Your task to perform on an android device: Go to location settings Image 0: 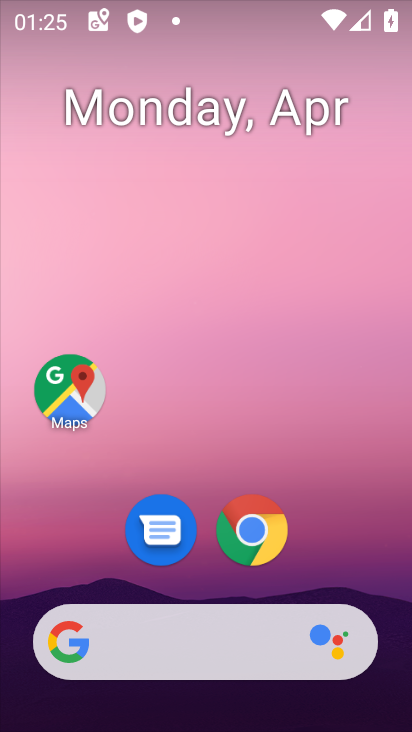
Step 0: drag from (355, 553) to (275, 62)
Your task to perform on an android device: Go to location settings Image 1: 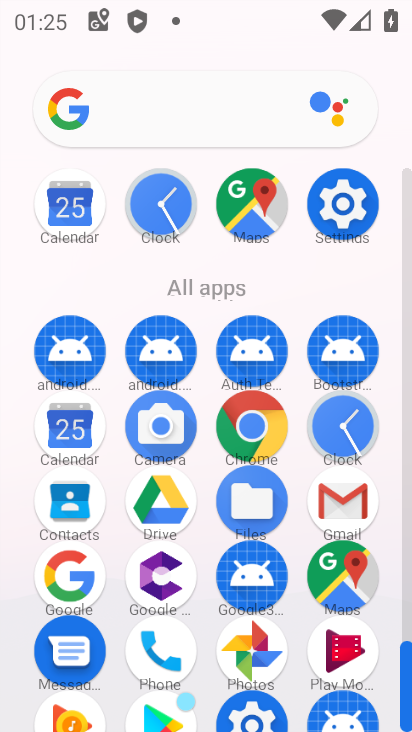
Step 1: click (345, 203)
Your task to perform on an android device: Go to location settings Image 2: 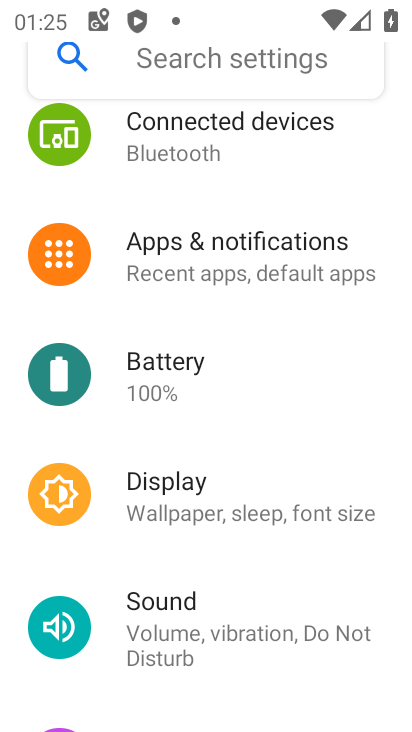
Step 2: drag from (243, 559) to (217, 220)
Your task to perform on an android device: Go to location settings Image 3: 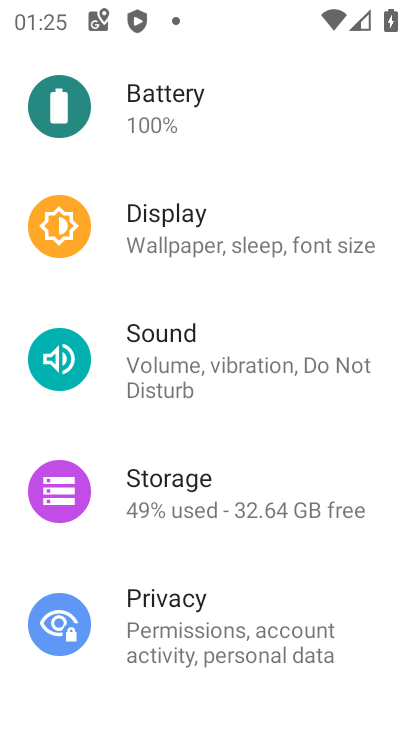
Step 3: drag from (220, 575) to (156, 177)
Your task to perform on an android device: Go to location settings Image 4: 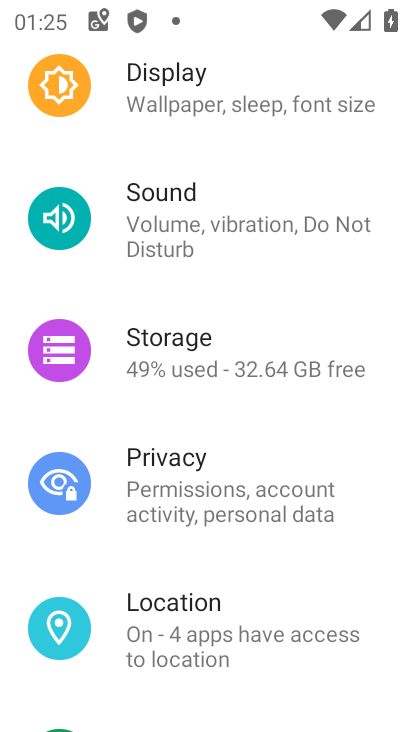
Step 4: click (174, 612)
Your task to perform on an android device: Go to location settings Image 5: 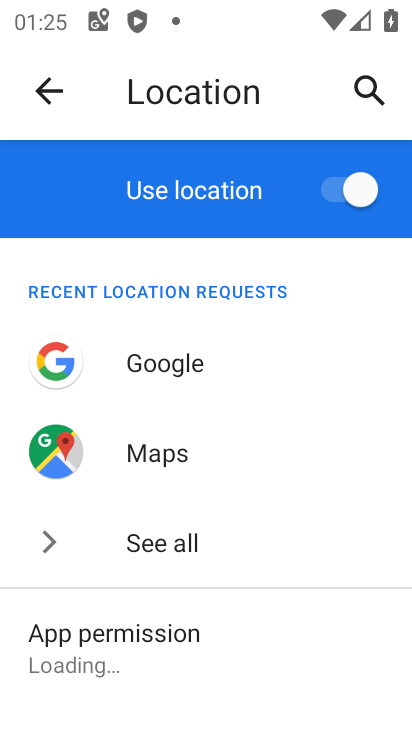
Step 5: task complete